Your task to perform on an android device: see creations saved in the google photos Image 0: 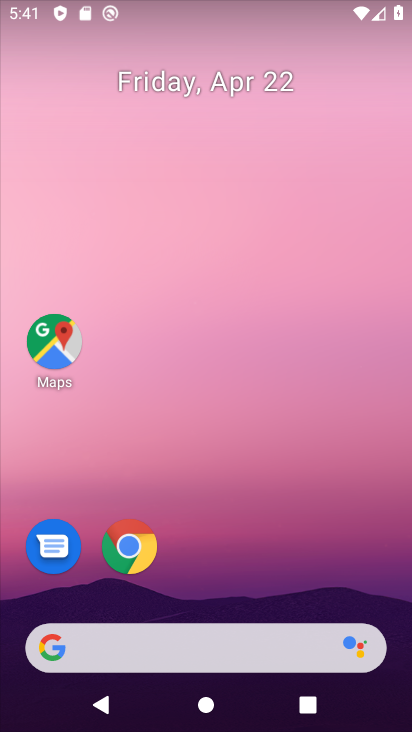
Step 0: drag from (213, 587) to (219, 74)
Your task to perform on an android device: see creations saved in the google photos Image 1: 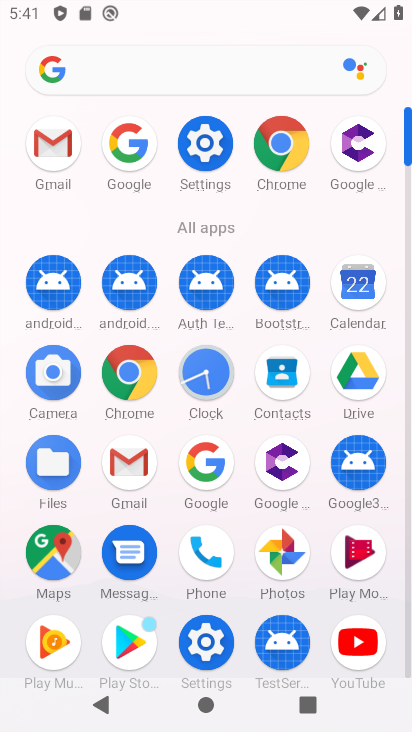
Step 1: click (269, 559)
Your task to perform on an android device: see creations saved in the google photos Image 2: 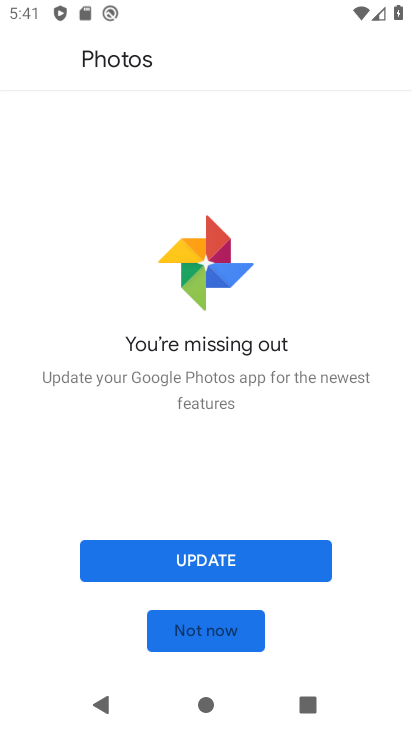
Step 2: click (202, 642)
Your task to perform on an android device: see creations saved in the google photos Image 3: 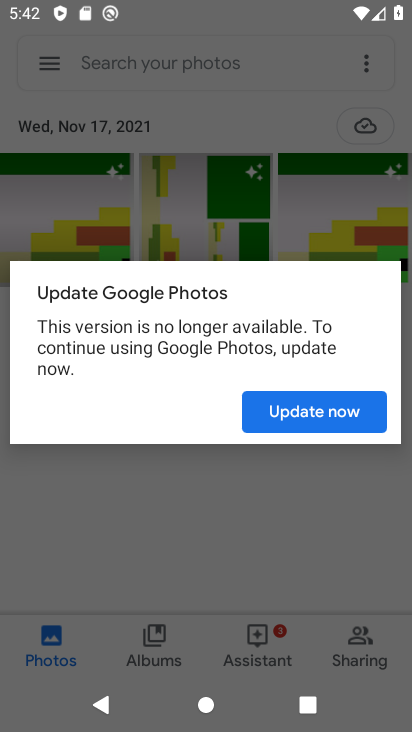
Step 3: click (278, 426)
Your task to perform on an android device: see creations saved in the google photos Image 4: 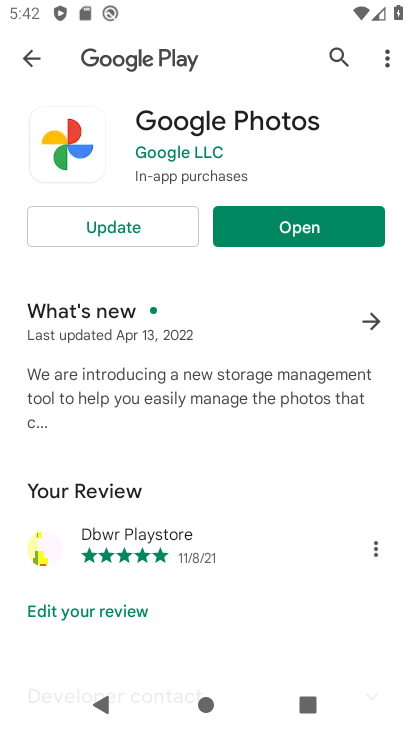
Step 4: click (261, 236)
Your task to perform on an android device: see creations saved in the google photos Image 5: 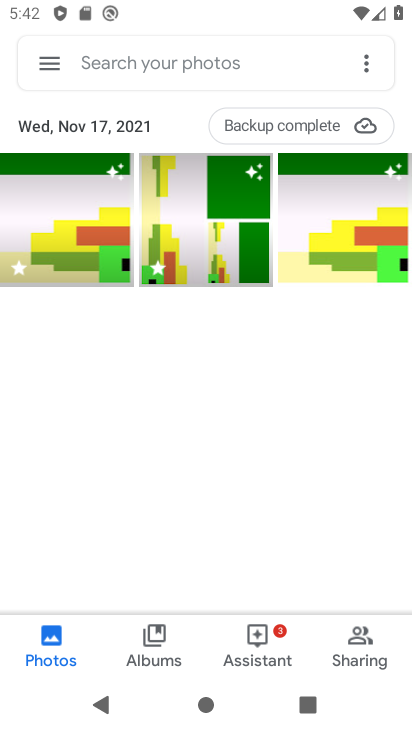
Step 5: click (166, 65)
Your task to perform on an android device: see creations saved in the google photos Image 6: 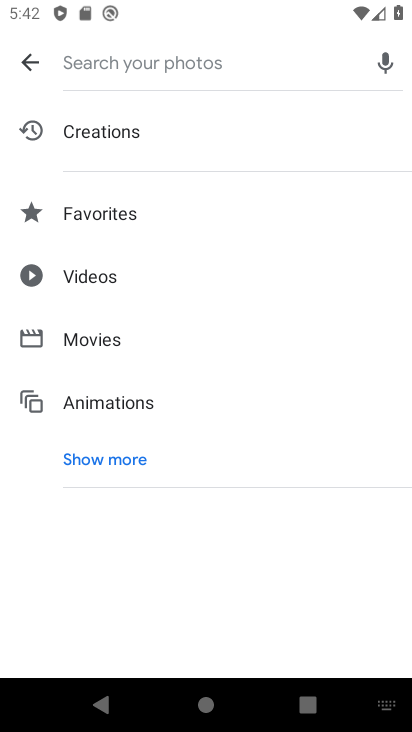
Step 6: click (95, 132)
Your task to perform on an android device: see creations saved in the google photos Image 7: 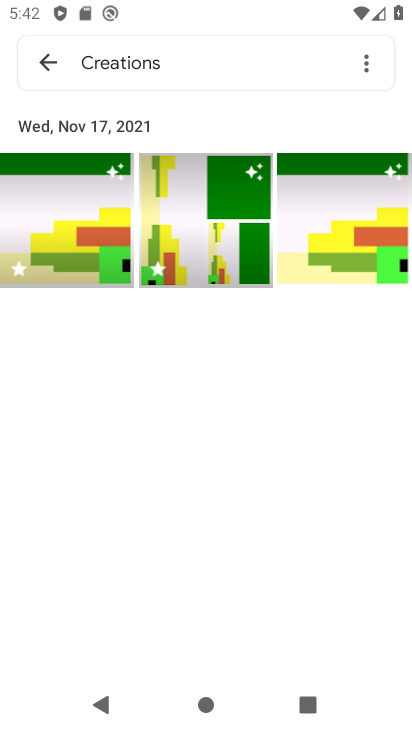
Step 7: task complete